Your task to perform on an android device: Set the phone to "Do not disturb". Image 0: 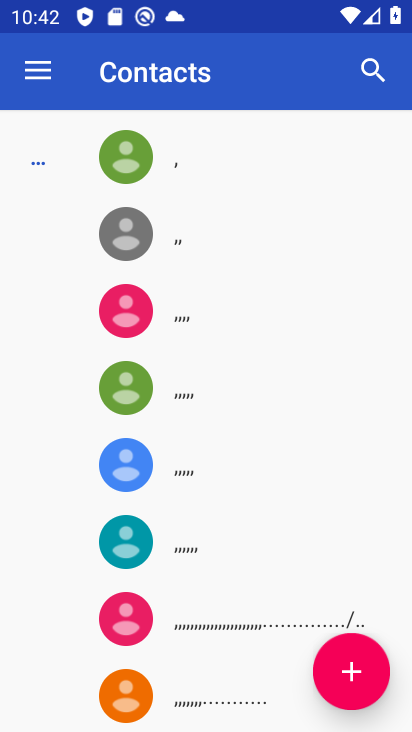
Step 0: press home button
Your task to perform on an android device: Set the phone to "Do not disturb". Image 1: 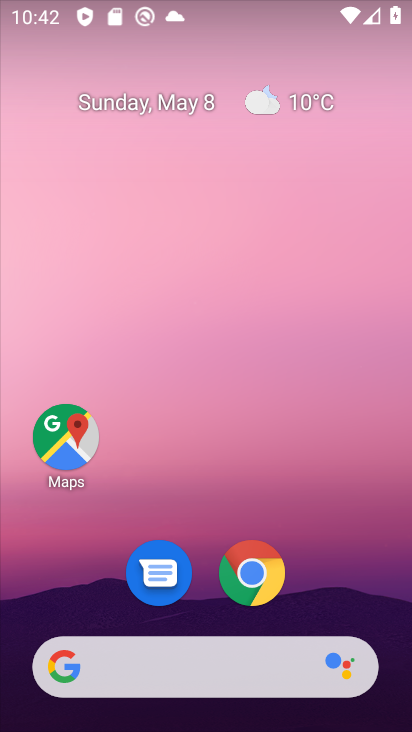
Step 1: drag from (349, 583) to (335, 110)
Your task to perform on an android device: Set the phone to "Do not disturb". Image 2: 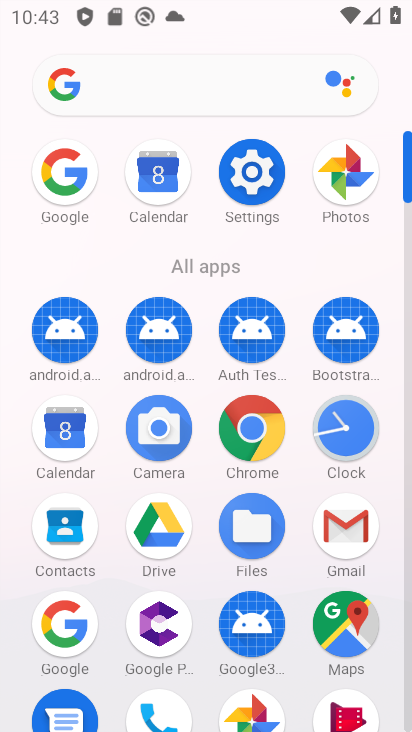
Step 2: drag from (212, 20) to (222, 58)
Your task to perform on an android device: Set the phone to "Do not disturb". Image 3: 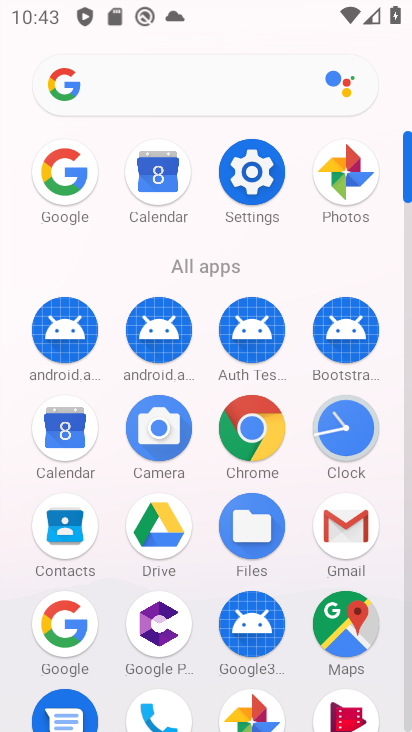
Step 3: drag from (243, 0) to (261, 729)
Your task to perform on an android device: Set the phone to "Do not disturb". Image 4: 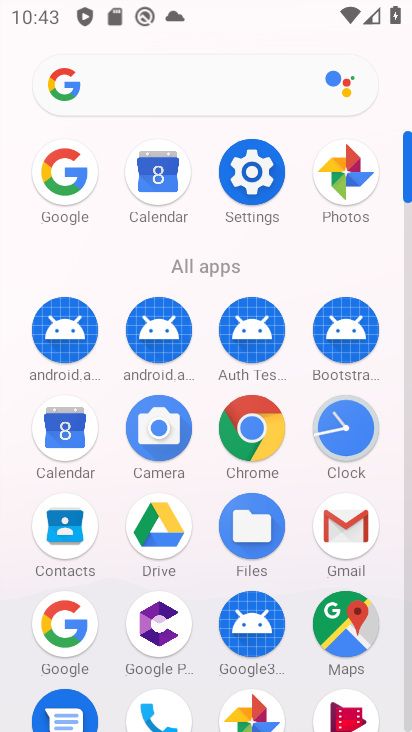
Step 4: drag from (202, 7) to (255, 727)
Your task to perform on an android device: Set the phone to "Do not disturb". Image 5: 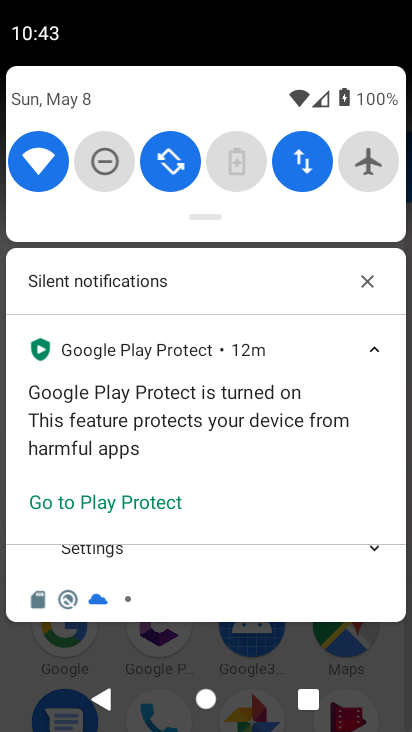
Step 5: drag from (204, 199) to (308, 730)
Your task to perform on an android device: Set the phone to "Do not disturb". Image 6: 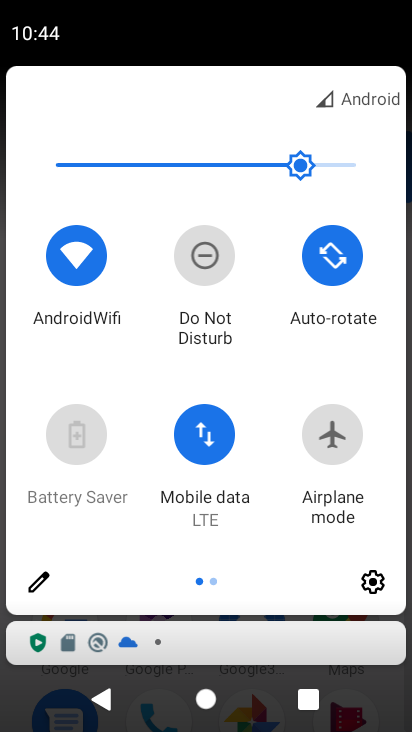
Step 6: click (199, 265)
Your task to perform on an android device: Set the phone to "Do not disturb". Image 7: 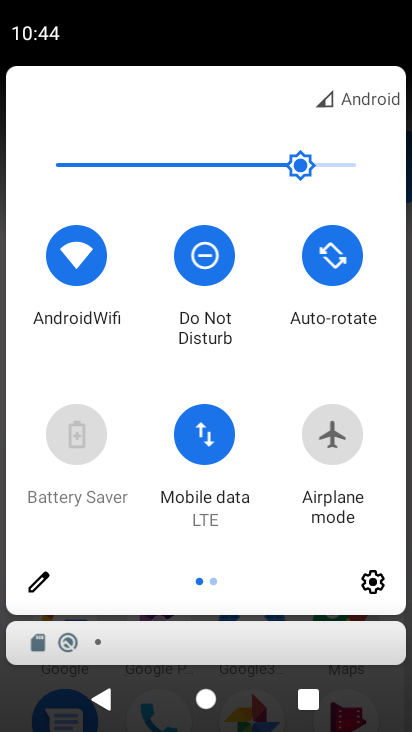
Step 7: task complete